Your task to perform on an android device: Empty the shopping cart on bestbuy. Image 0: 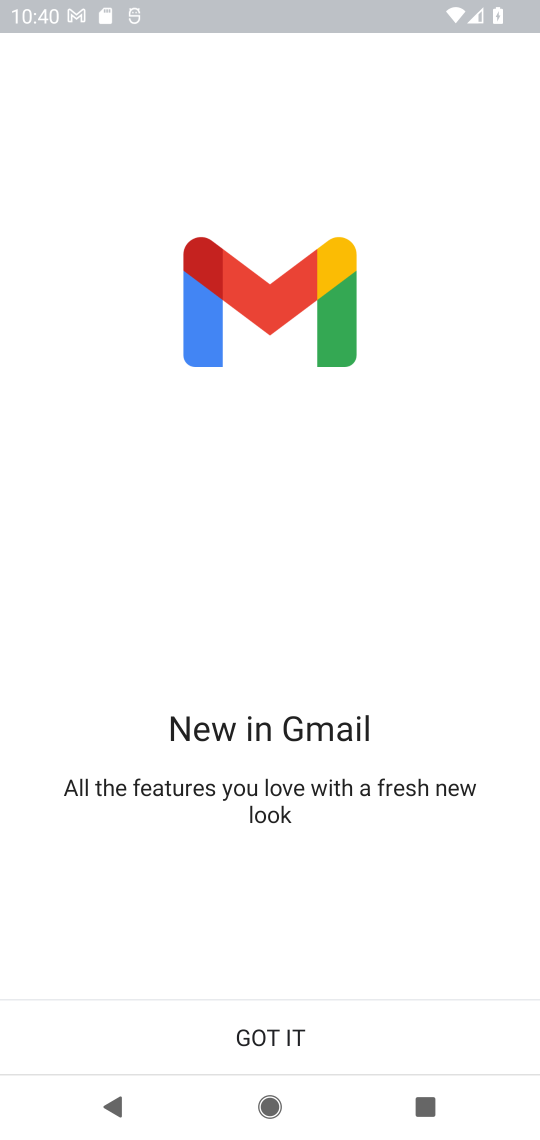
Step 0: press home button
Your task to perform on an android device: Empty the shopping cart on bestbuy. Image 1: 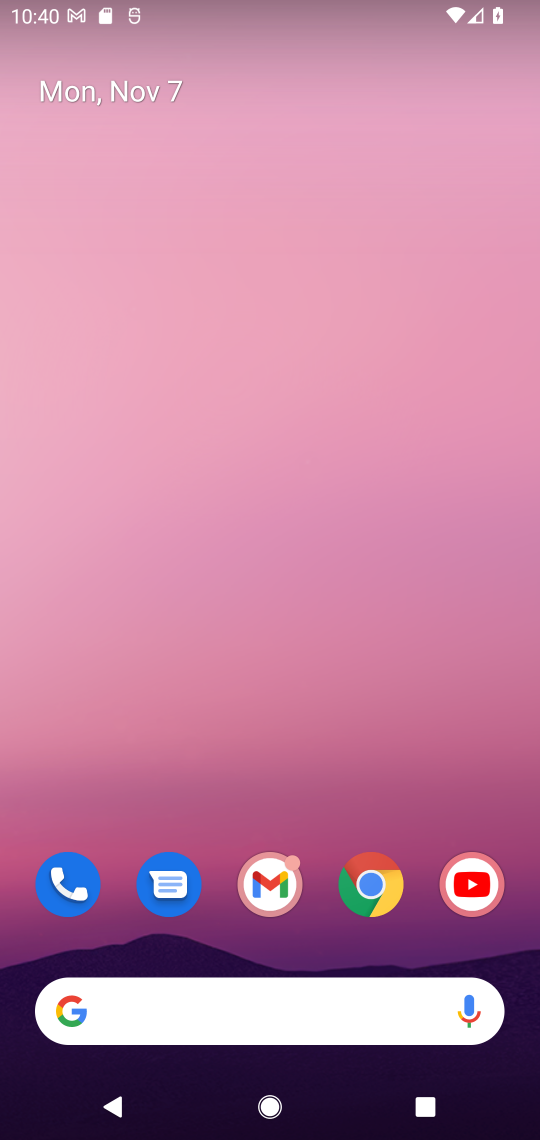
Step 1: click (383, 890)
Your task to perform on an android device: Empty the shopping cart on bestbuy. Image 2: 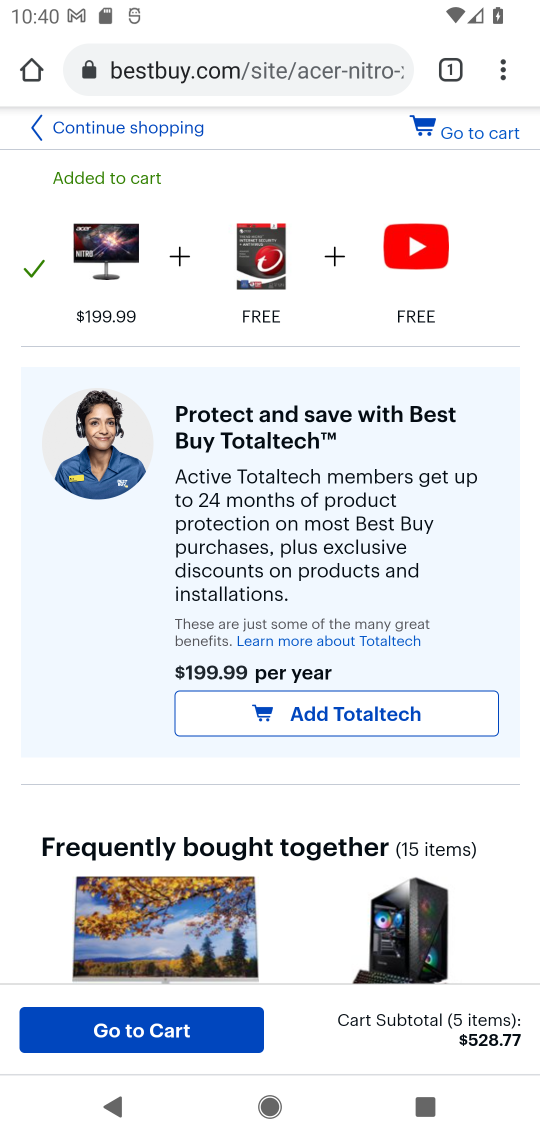
Step 2: press back button
Your task to perform on an android device: Empty the shopping cart on bestbuy. Image 3: 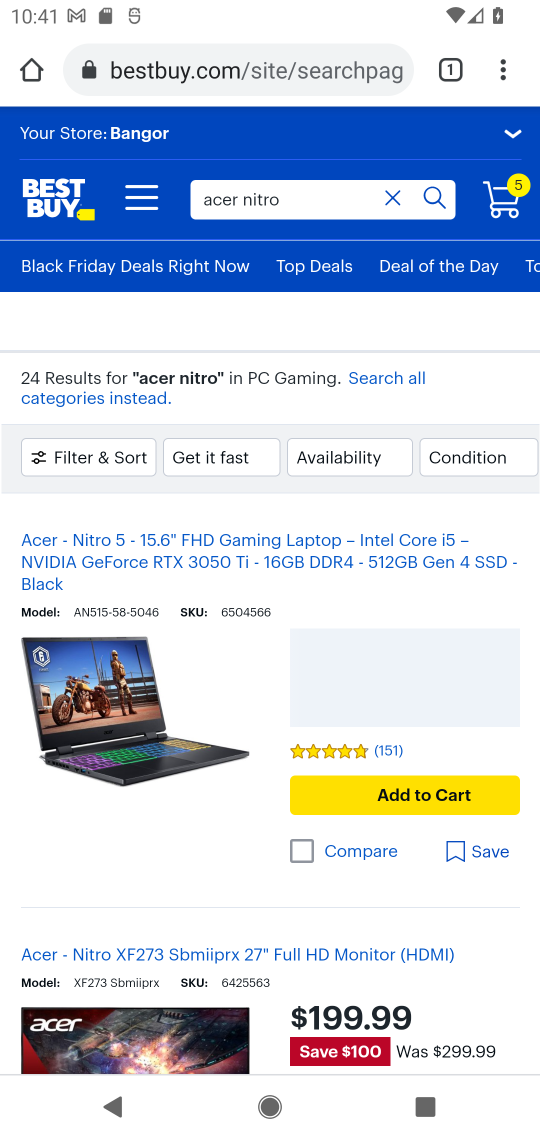
Step 3: click (501, 190)
Your task to perform on an android device: Empty the shopping cart on bestbuy. Image 4: 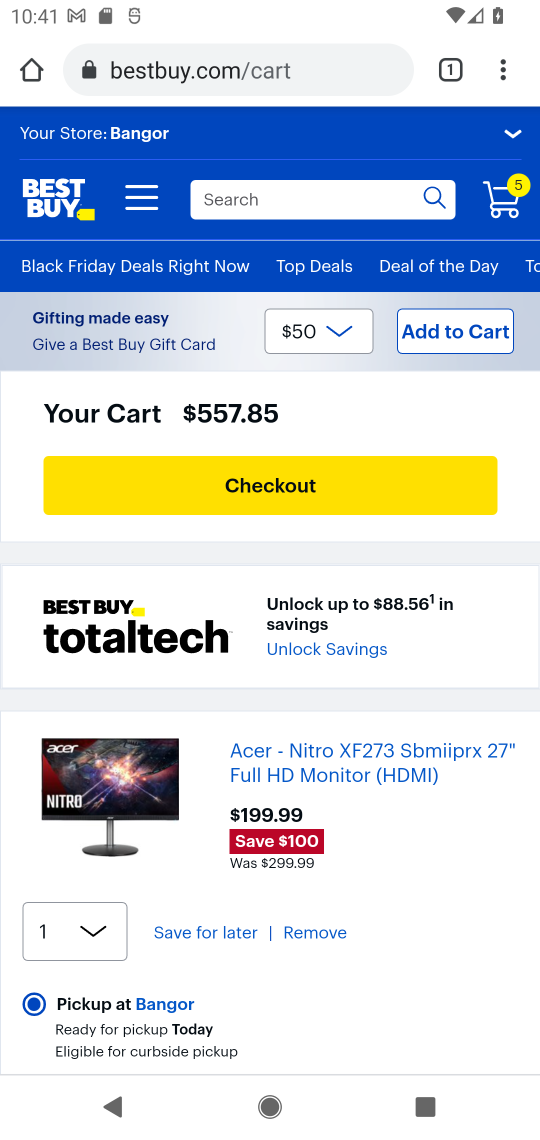
Step 4: drag from (468, 871) to (400, 517)
Your task to perform on an android device: Empty the shopping cart on bestbuy. Image 5: 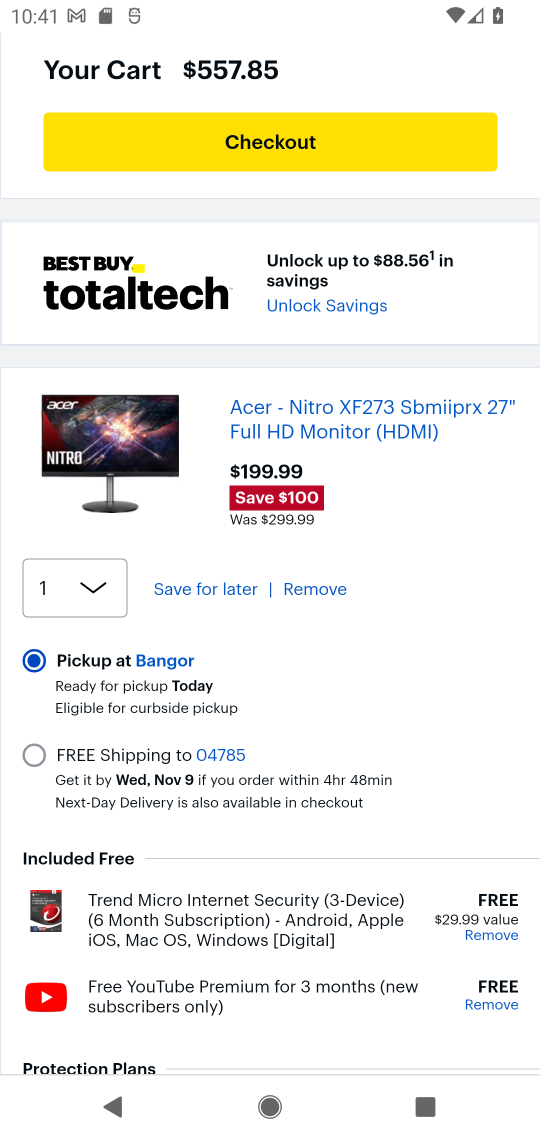
Step 5: click (326, 587)
Your task to perform on an android device: Empty the shopping cart on bestbuy. Image 6: 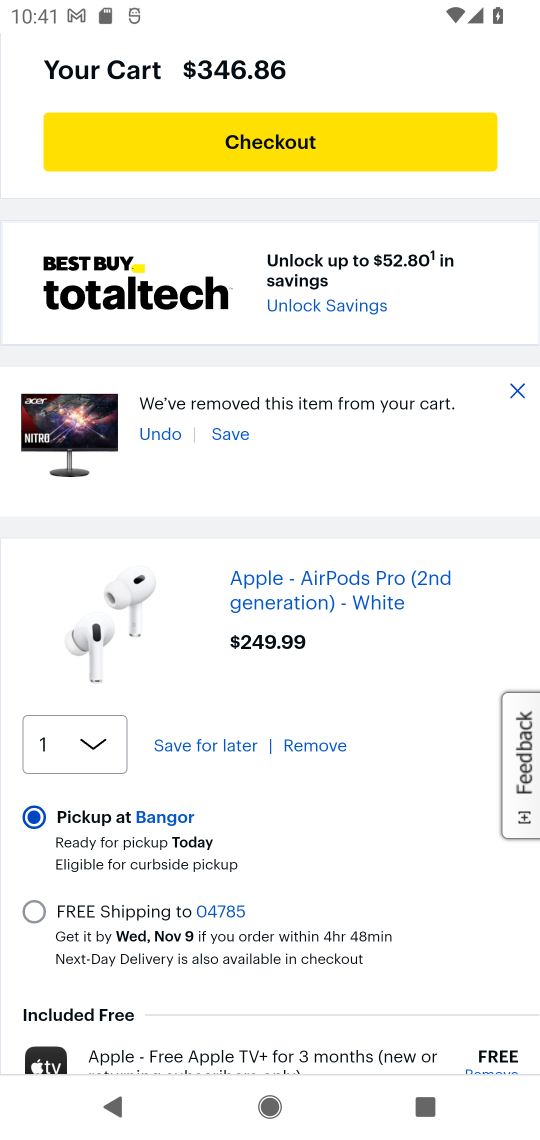
Step 6: click (314, 744)
Your task to perform on an android device: Empty the shopping cart on bestbuy. Image 7: 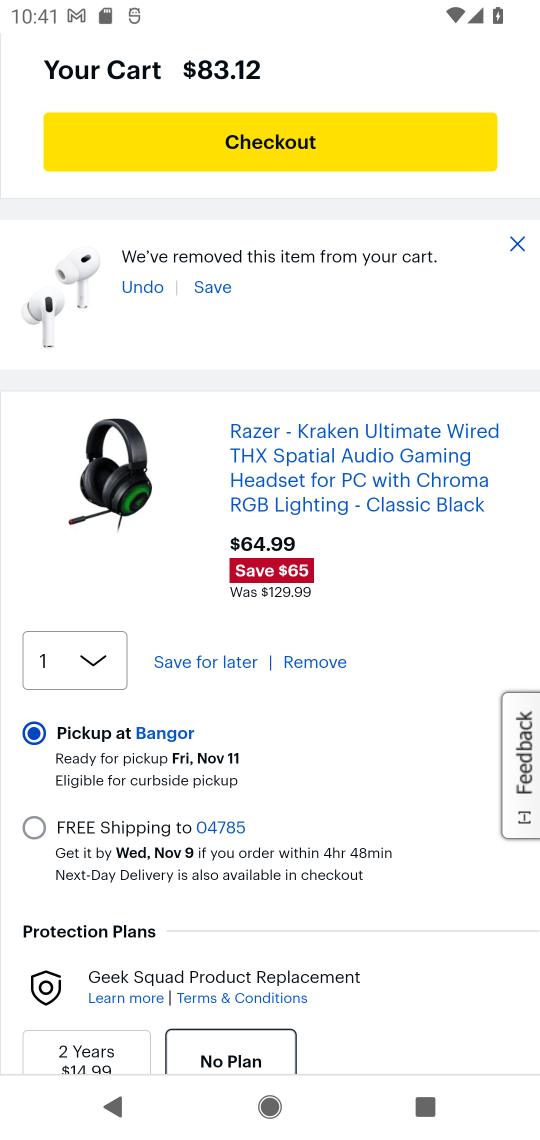
Step 7: click (296, 653)
Your task to perform on an android device: Empty the shopping cart on bestbuy. Image 8: 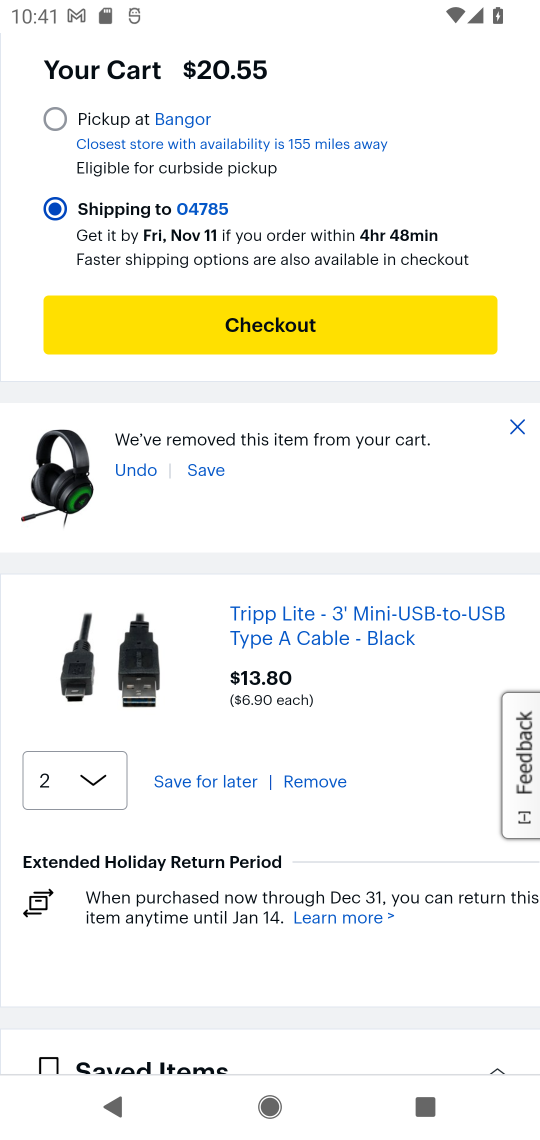
Step 8: click (316, 775)
Your task to perform on an android device: Empty the shopping cart on bestbuy. Image 9: 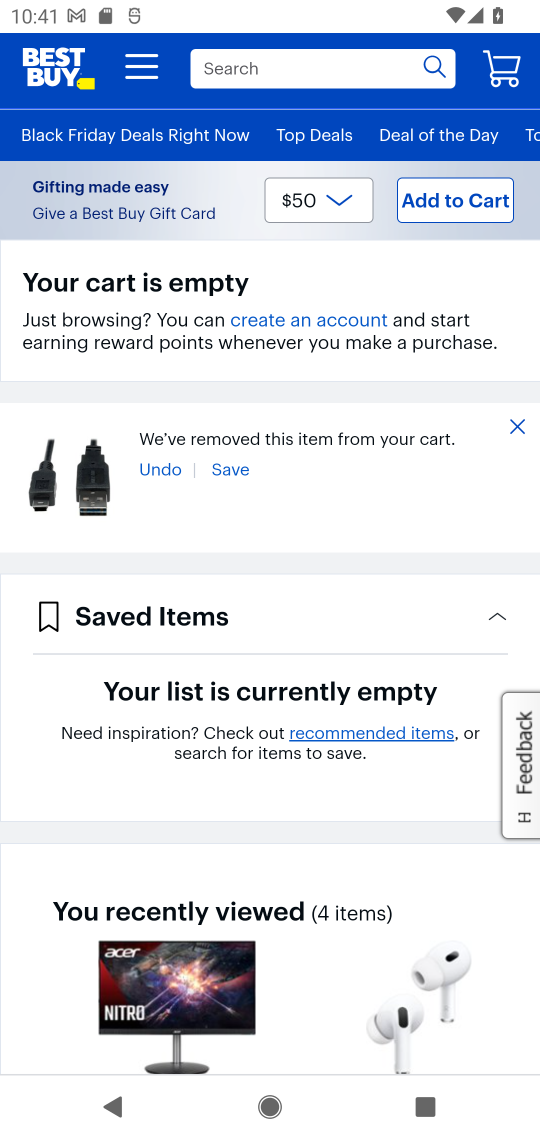
Step 9: task complete